Your task to perform on an android device: turn off translation in the chrome app Image 0: 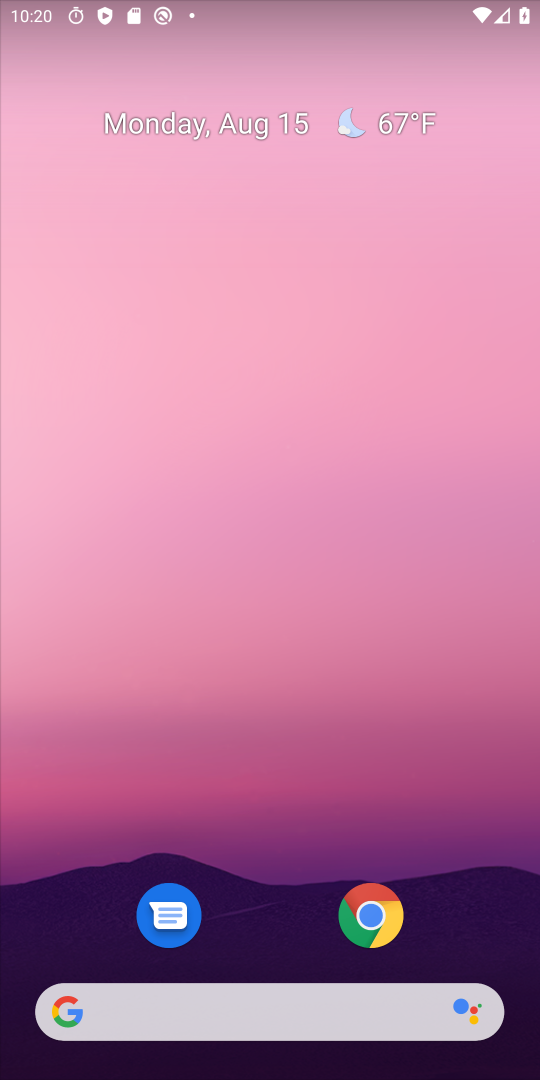
Step 0: click (383, 918)
Your task to perform on an android device: turn off translation in the chrome app Image 1: 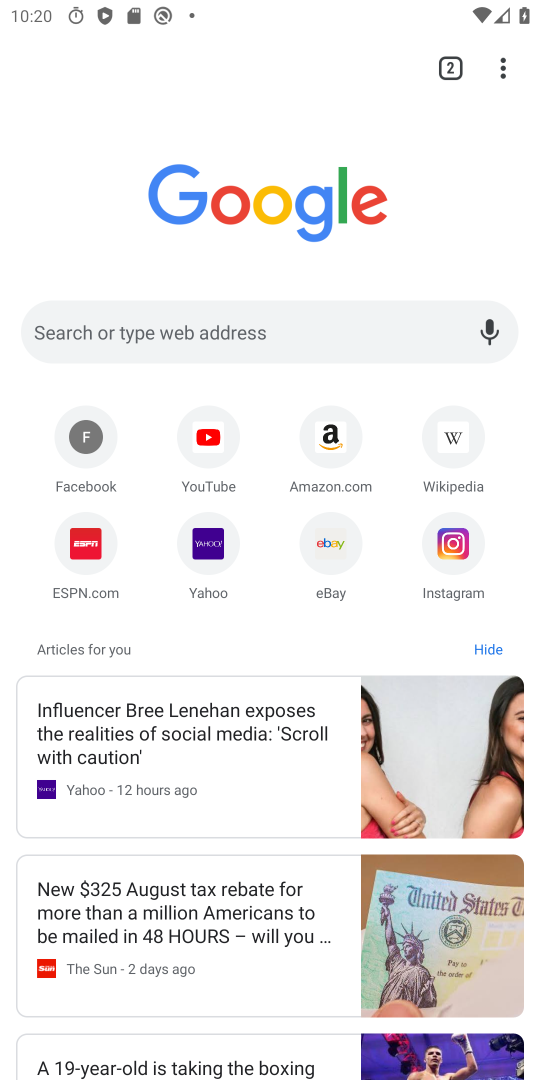
Step 1: click (498, 57)
Your task to perform on an android device: turn off translation in the chrome app Image 2: 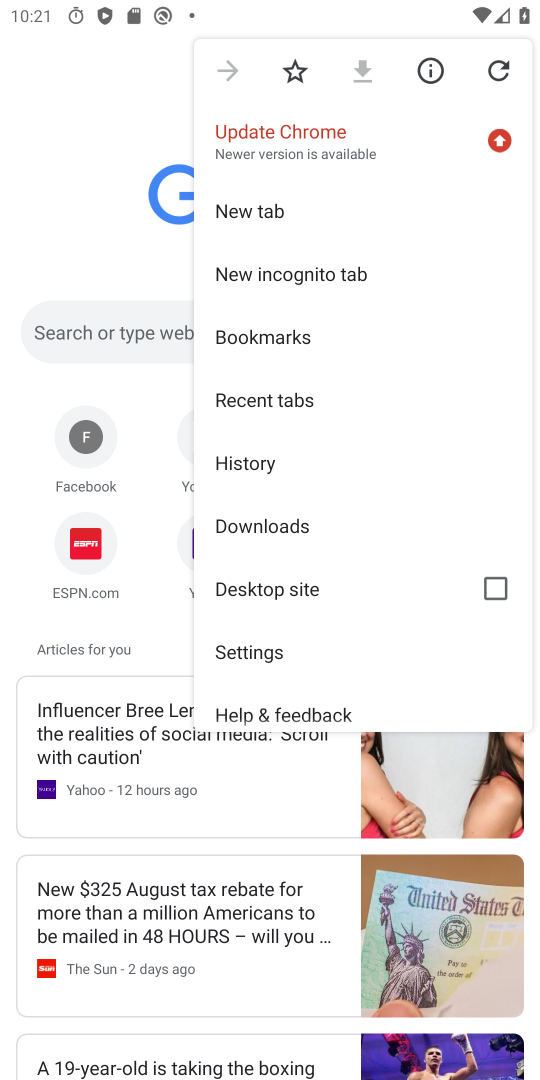
Step 2: click (323, 654)
Your task to perform on an android device: turn off translation in the chrome app Image 3: 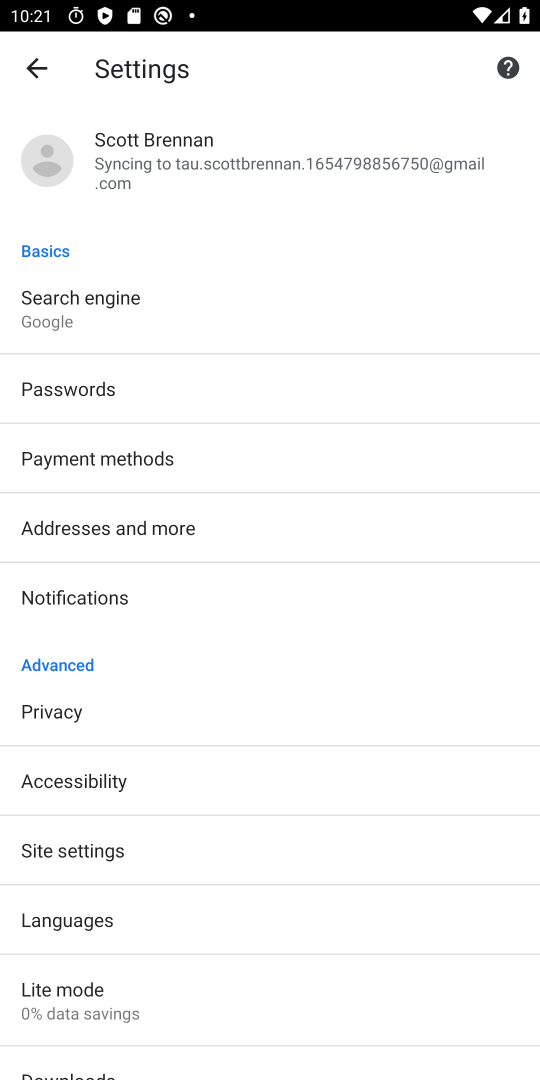
Step 3: click (91, 912)
Your task to perform on an android device: turn off translation in the chrome app Image 4: 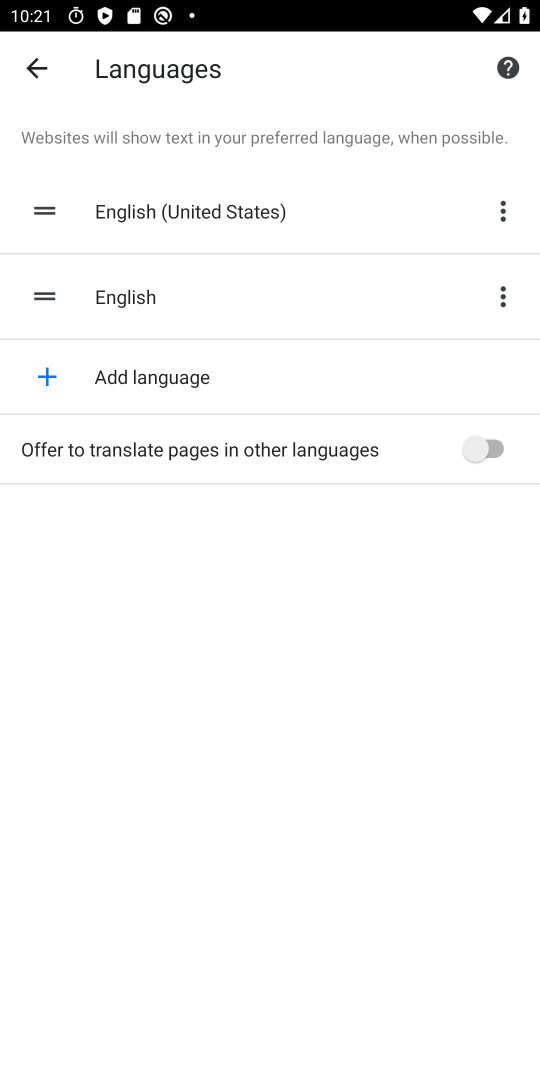
Step 4: task complete